Your task to perform on an android device: Open the calendar app, open the side menu, and click the "Day" option Image 0: 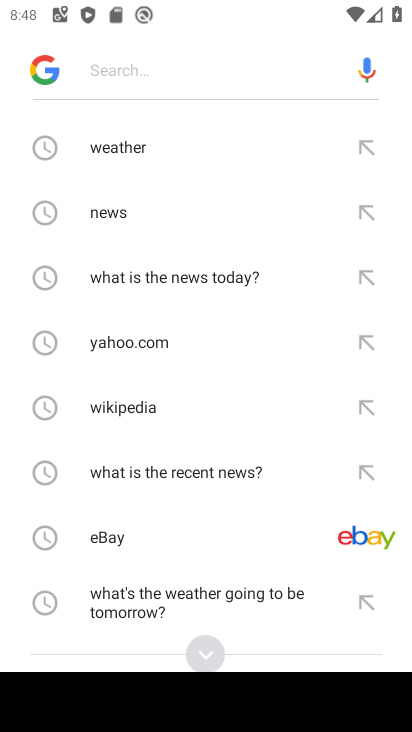
Step 0: press home button
Your task to perform on an android device: Open the calendar app, open the side menu, and click the "Day" option Image 1: 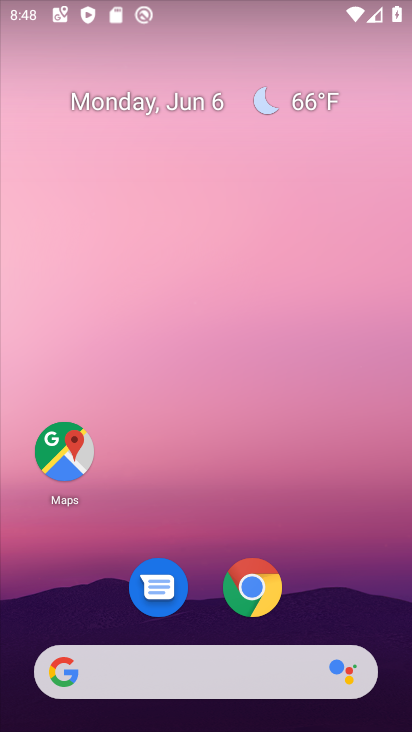
Step 1: drag from (70, 645) to (210, 177)
Your task to perform on an android device: Open the calendar app, open the side menu, and click the "Day" option Image 2: 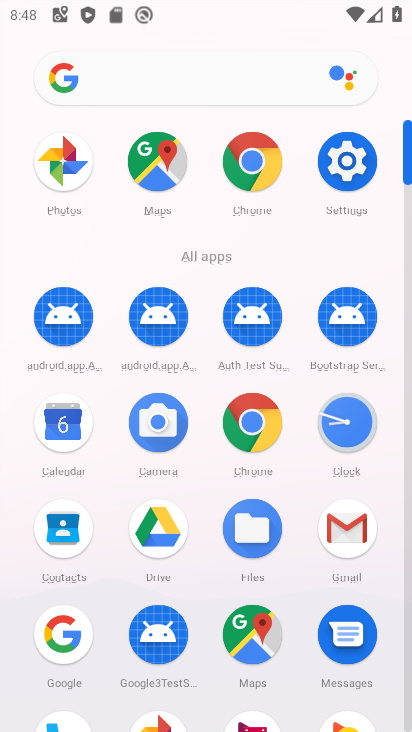
Step 2: click (74, 423)
Your task to perform on an android device: Open the calendar app, open the side menu, and click the "Day" option Image 3: 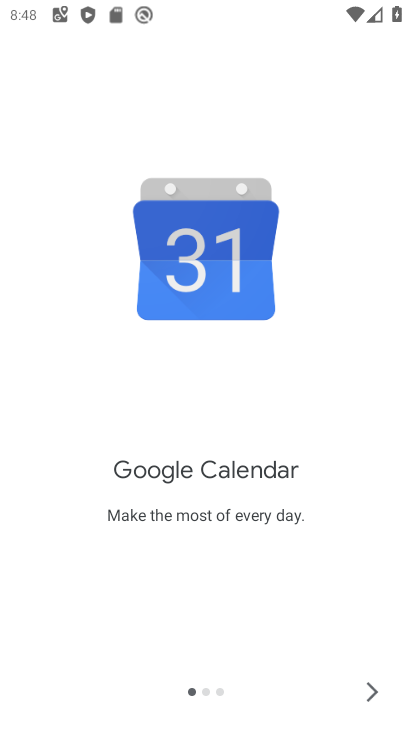
Step 3: click (379, 700)
Your task to perform on an android device: Open the calendar app, open the side menu, and click the "Day" option Image 4: 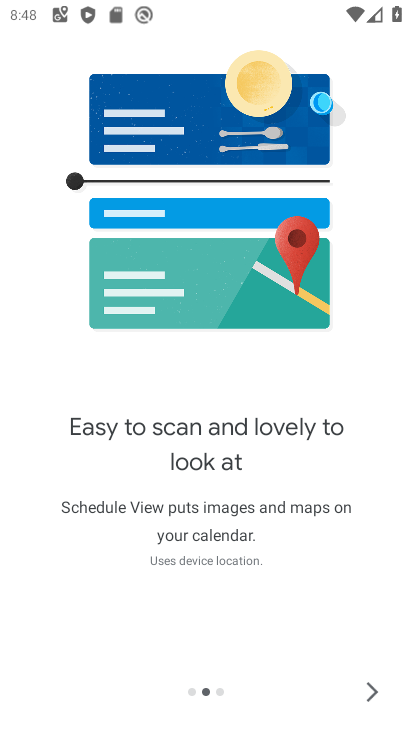
Step 4: click (379, 700)
Your task to perform on an android device: Open the calendar app, open the side menu, and click the "Day" option Image 5: 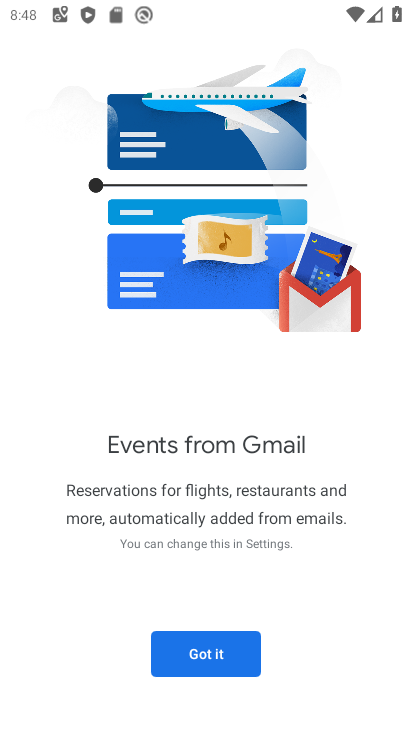
Step 5: click (236, 656)
Your task to perform on an android device: Open the calendar app, open the side menu, and click the "Day" option Image 6: 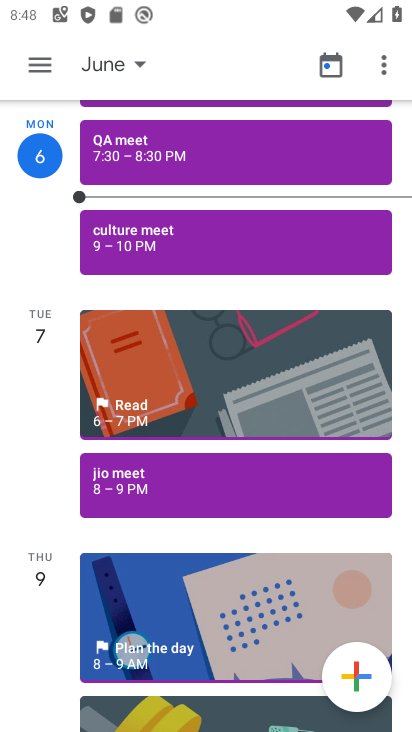
Step 6: click (37, 76)
Your task to perform on an android device: Open the calendar app, open the side menu, and click the "Day" option Image 7: 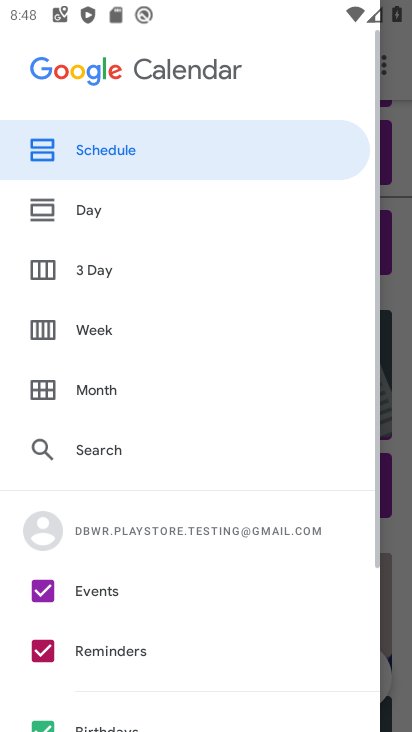
Step 7: click (156, 220)
Your task to perform on an android device: Open the calendar app, open the side menu, and click the "Day" option Image 8: 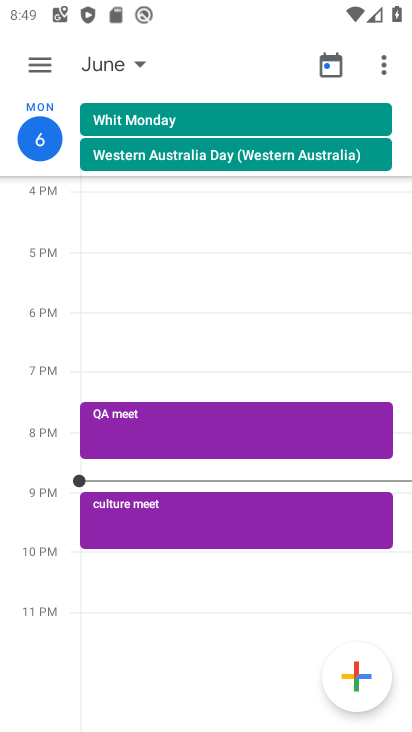
Step 8: task complete